Your task to perform on an android device: toggle improve location accuracy Image 0: 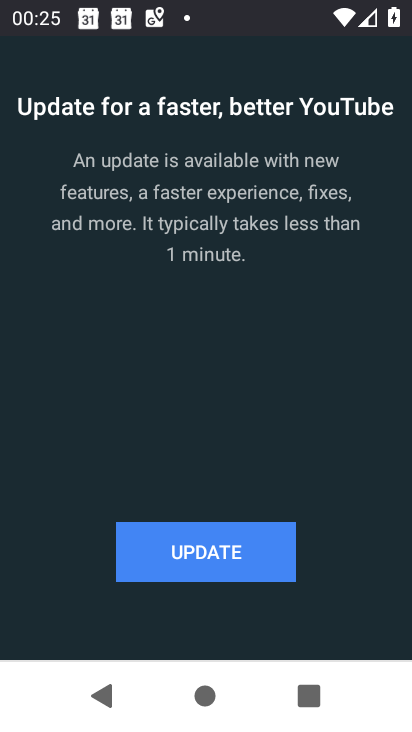
Step 0: press back button
Your task to perform on an android device: toggle improve location accuracy Image 1: 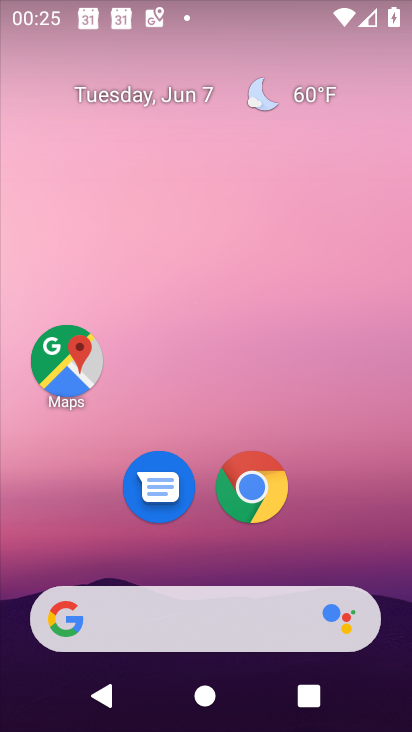
Step 1: drag from (392, 530) to (322, 231)
Your task to perform on an android device: toggle improve location accuracy Image 2: 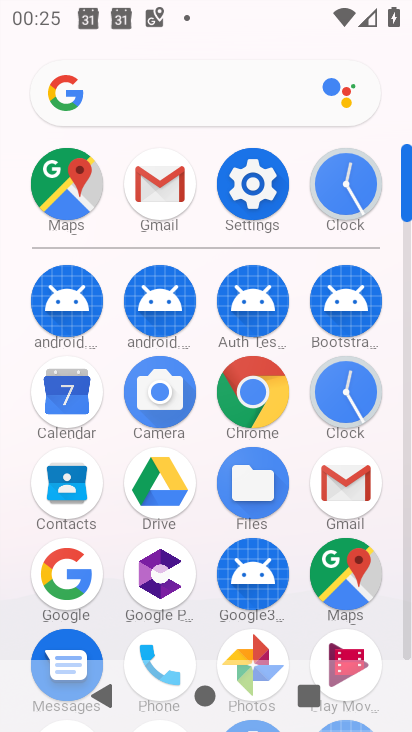
Step 2: click (271, 187)
Your task to perform on an android device: toggle improve location accuracy Image 3: 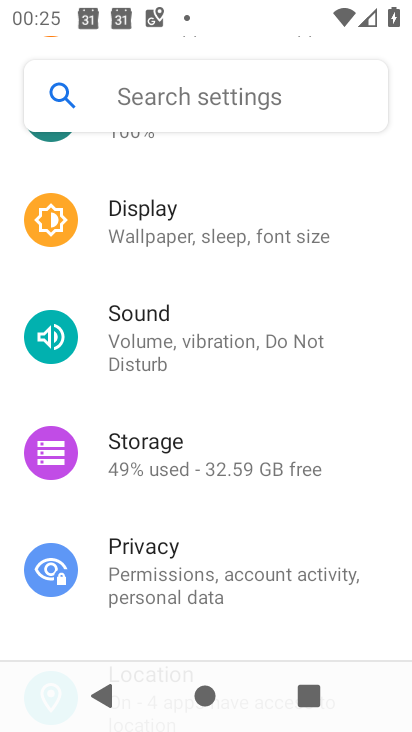
Step 3: drag from (247, 531) to (213, 96)
Your task to perform on an android device: toggle improve location accuracy Image 4: 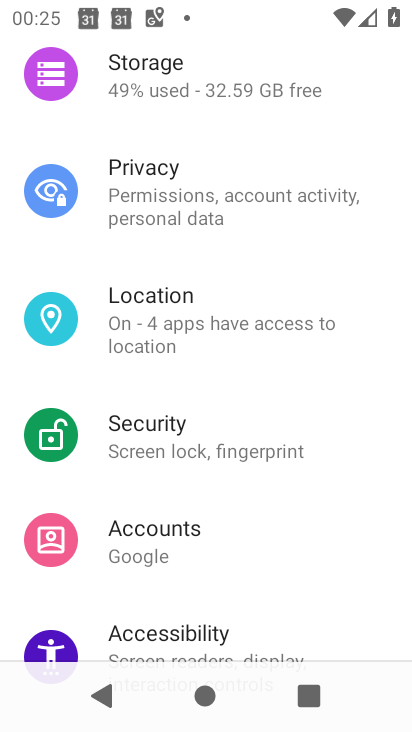
Step 4: click (231, 313)
Your task to perform on an android device: toggle improve location accuracy Image 5: 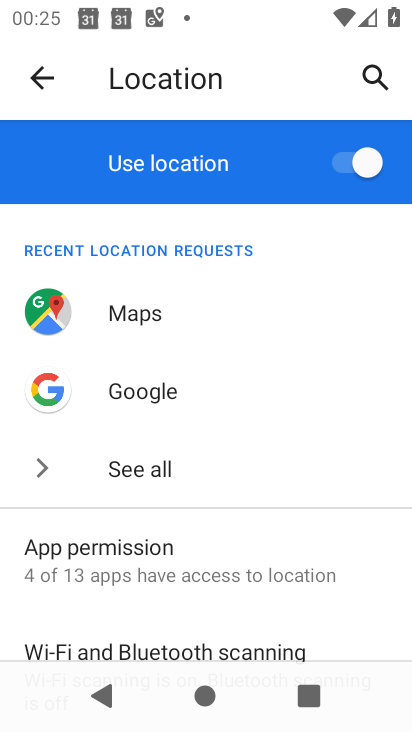
Step 5: drag from (289, 566) to (239, 258)
Your task to perform on an android device: toggle improve location accuracy Image 6: 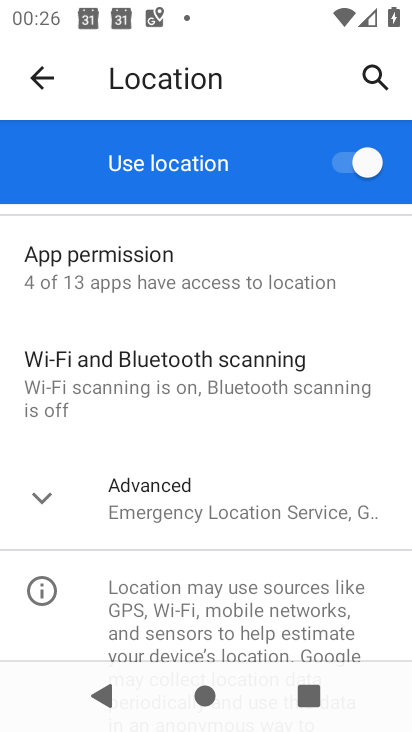
Step 6: click (272, 489)
Your task to perform on an android device: toggle improve location accuracy Image 7: 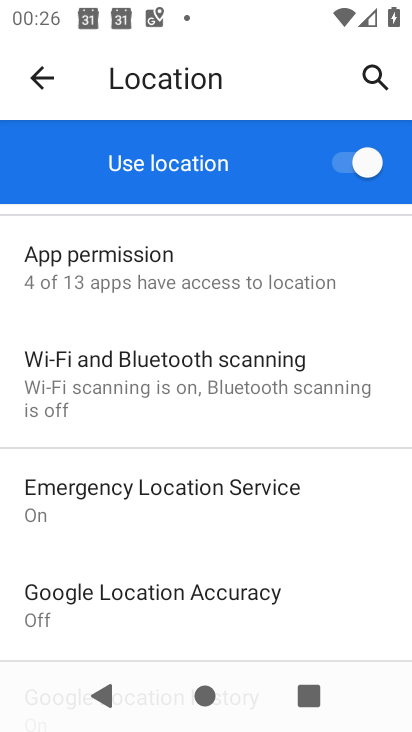
Step 7: drag from (285, 572) to (263, 393)
Your task to perform on an android device: toggle improve location accuracy Image 8: 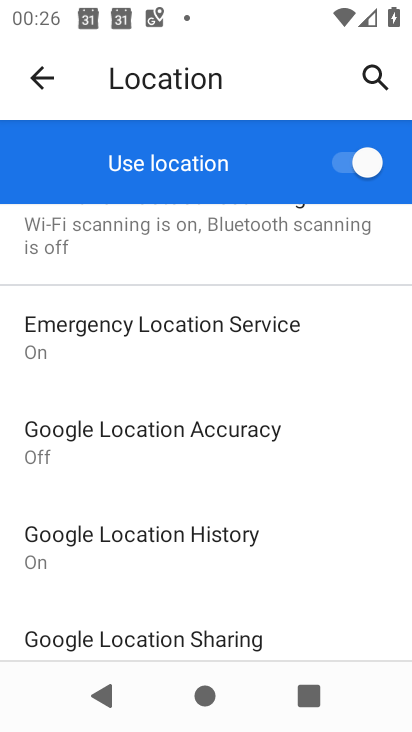
Step 8: click (229, 449)
Your task to perform on an android device: toggle improve location accuracy Image 9: 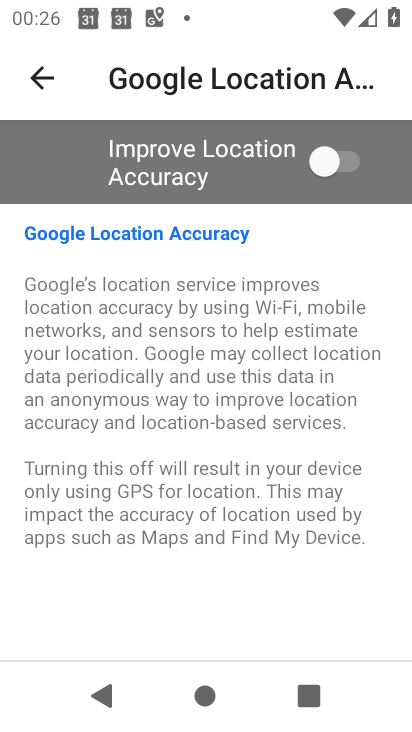
Step 9: click (348, 164)
Your task to perform on an android device: toggle improve location accuracy Image 10: 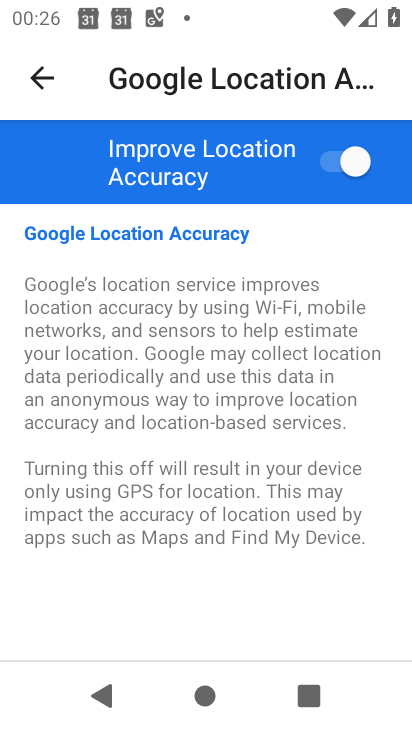
Step 10: task complete